Your task to perform on an android device: Go to wifi settings Image 0: 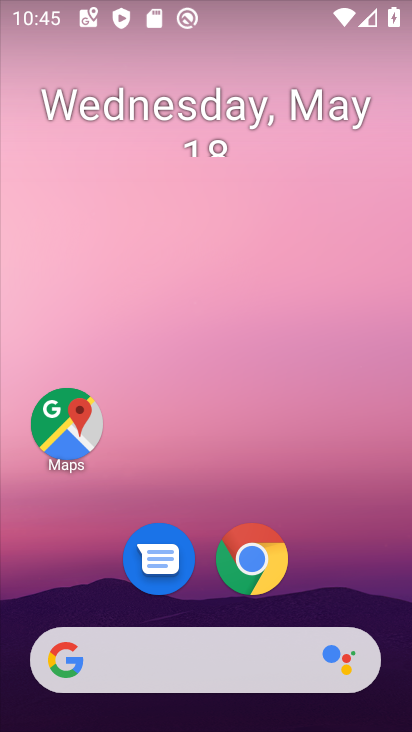
Step 0: drag from (124, 14) to (214, 568)
Your task to perform on an android device: Go to wifi settings Image 1: 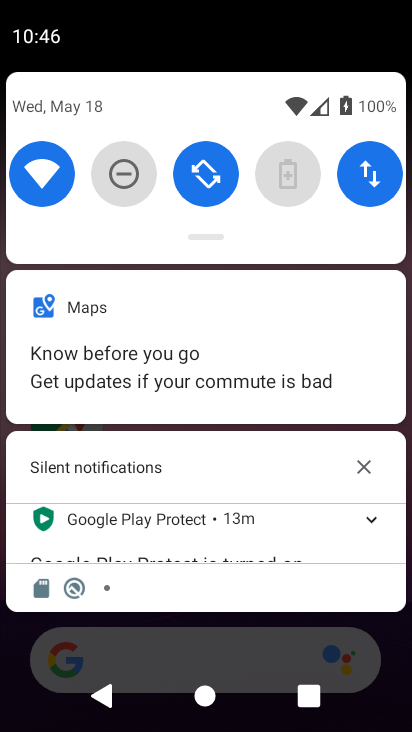
Step 1: click (49, 158)
Your task to perform on an android device: Go to wifi settings Image 2: 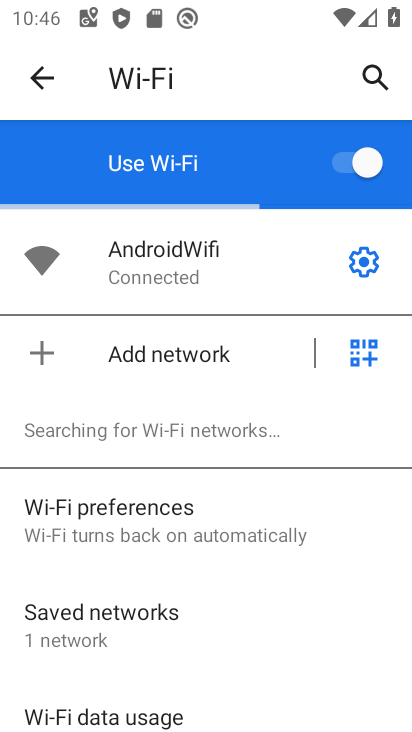
Step 2: task complete